Your task to perform on an android device: change notifications settings Image 0: 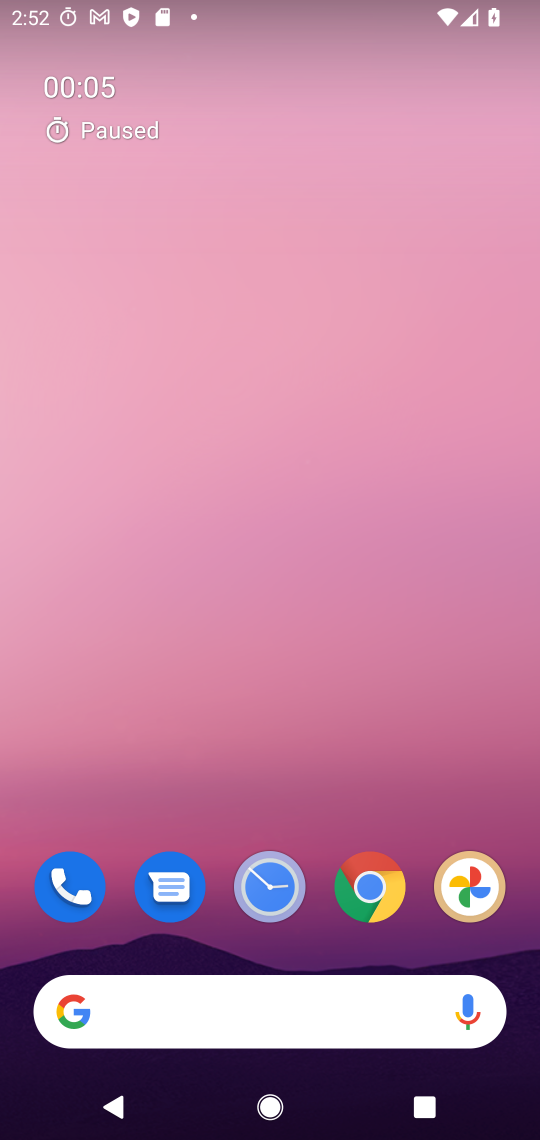
Step 0: drag from (295, 713) to (312, 445)
Your task to perform on an android device: change notifications settings Image 1: 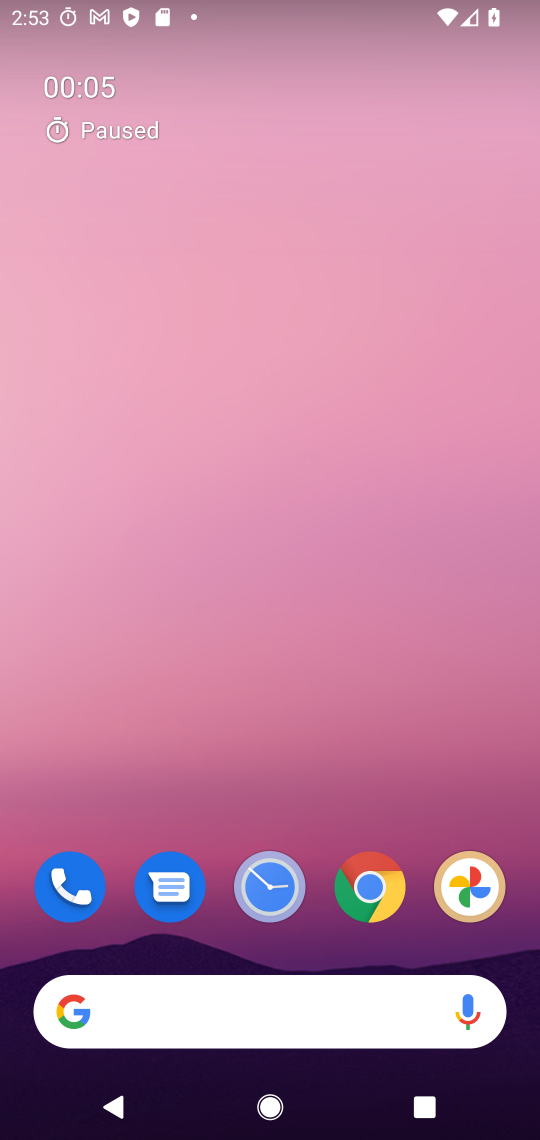
Step 1: drag from (273, 992) to (317, 331)
Your task to perform on an android device: change notifications settings Image 2: 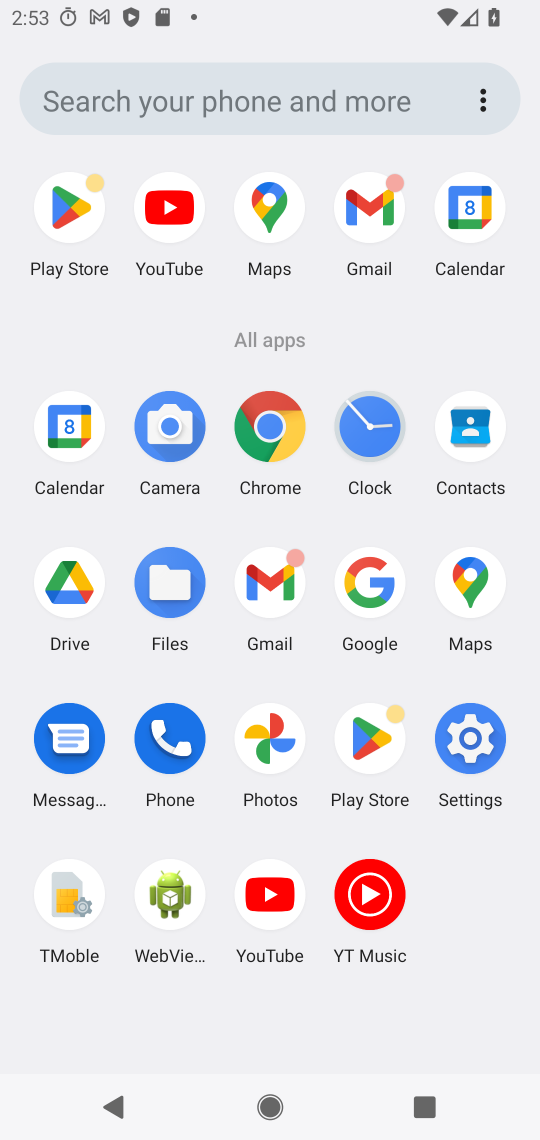
Step 2: click (457, 718)
Your task to perform on an android device: change notifications settings Image 3: 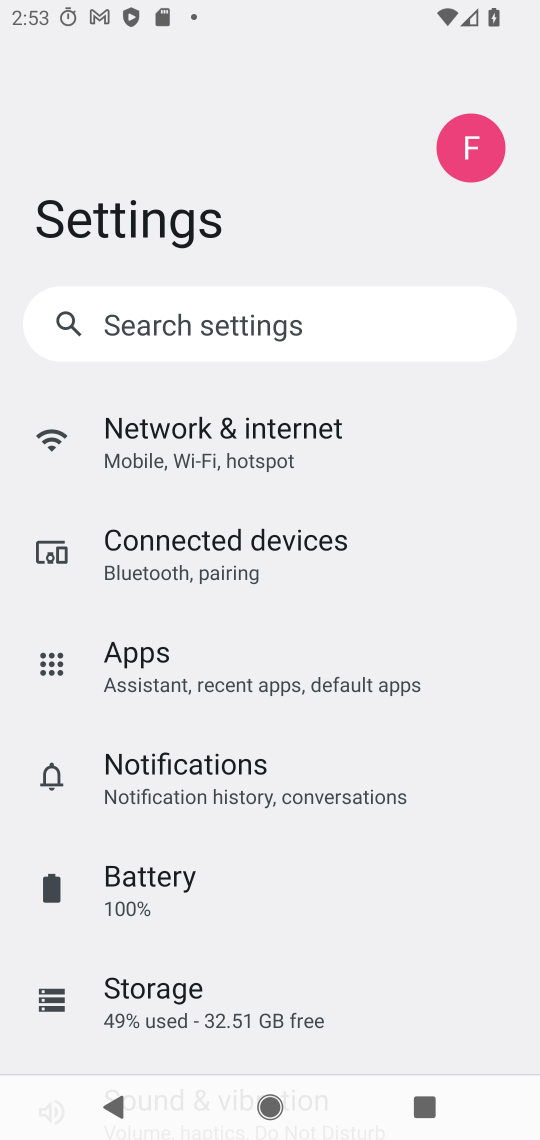
Step 3: click (173, 792)
Your task to perform on an android device: change notifications settings Image 4: 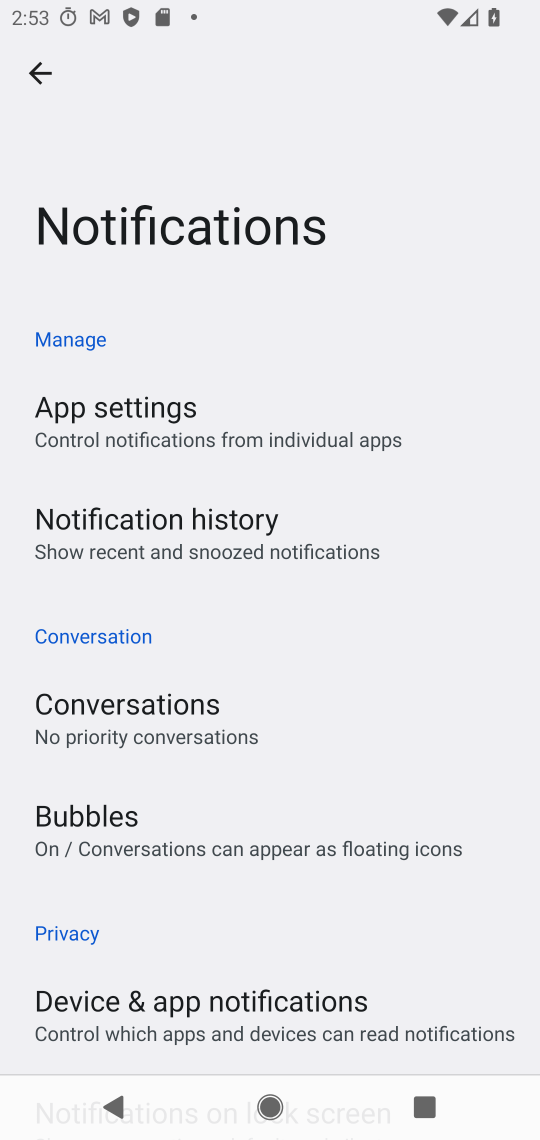
Step 4: click (85, 526)
Your task to perform on an android device: change notifications settings Image 5: 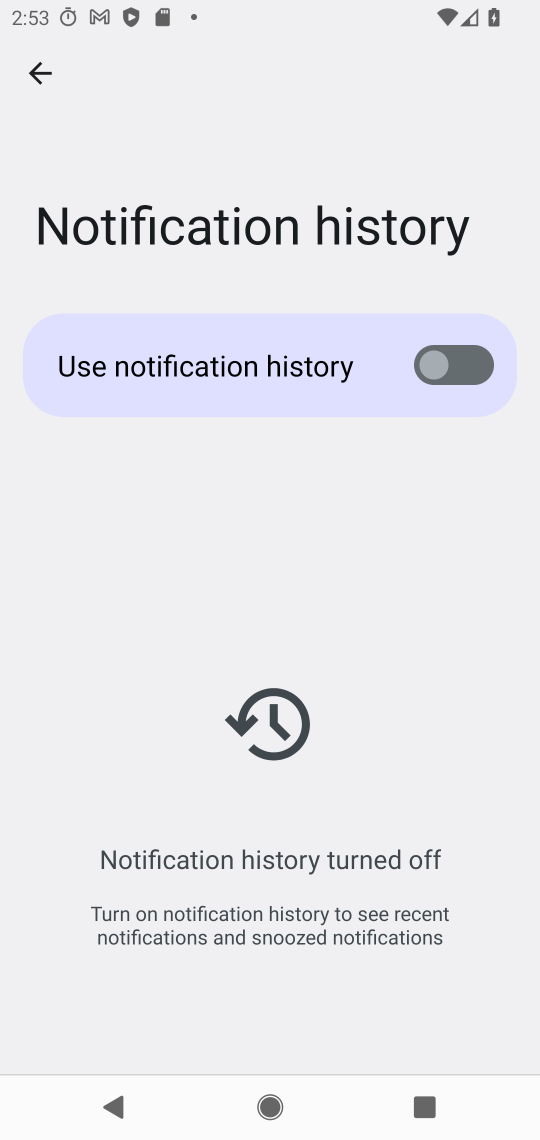
Step 5: click (441, 367)
Your task to perform on an android device: change notifications settings Image 6: 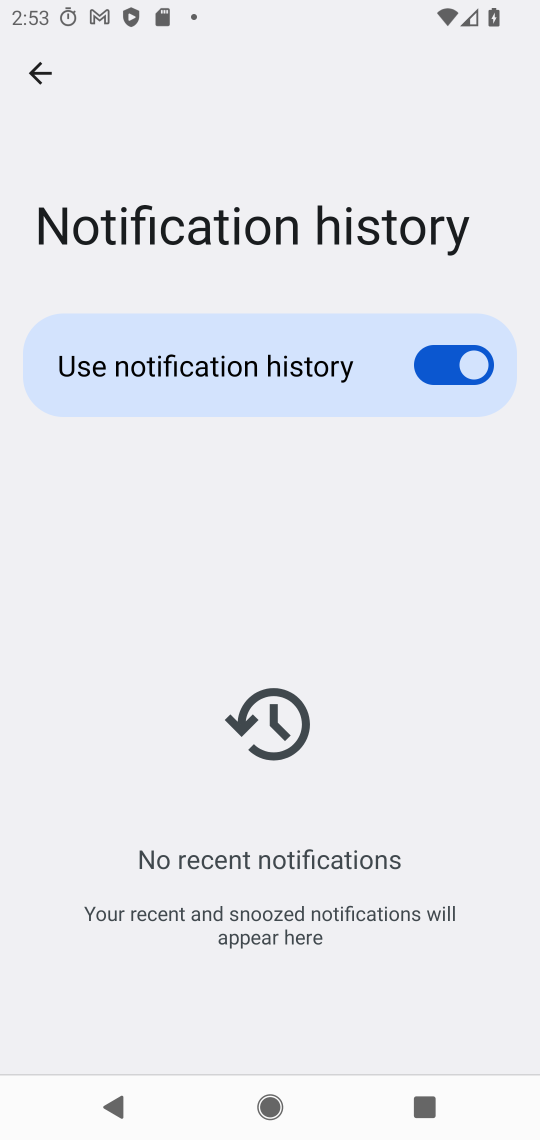
Step 6: task complete